Your task to perform on an android device: turn on translation in the chrome app Image 0: 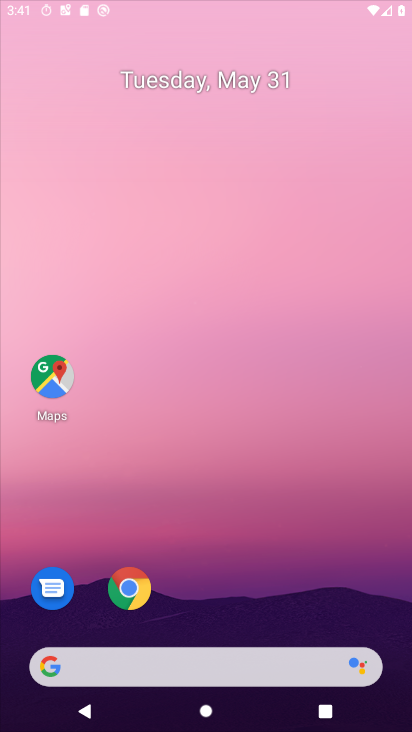
Step 0: drag from (259, 166) to (255, 86)
Your task to perform on an android device: turn on translation in the chrome app Image 1: 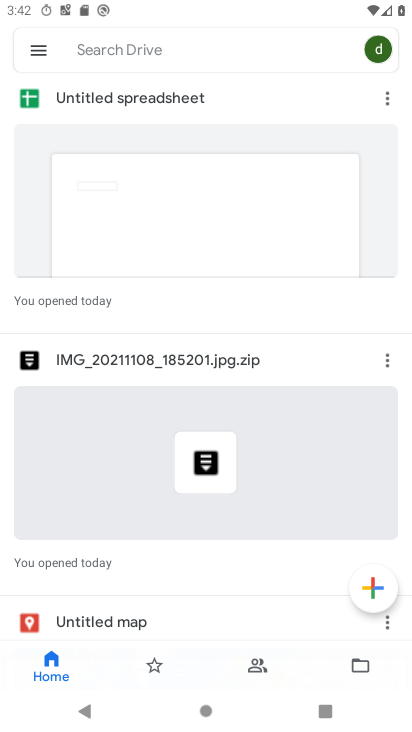
Step 1: press home button
Your task to perform on an android device: turn on translation in the chrome app Image 2: 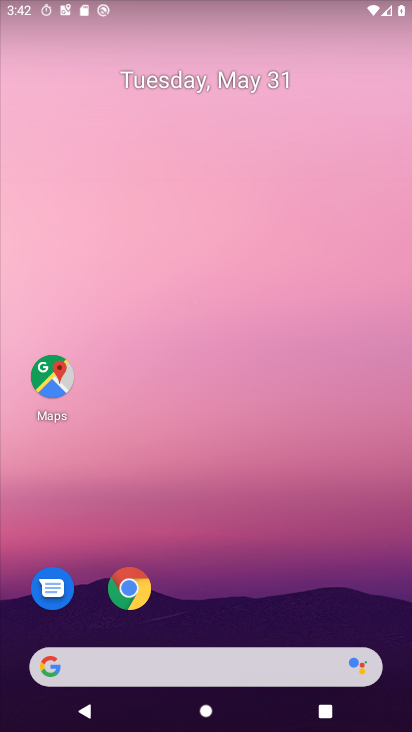
Step 2: drag from (221, 678) to (299, 45)
Your task to perform on an android device: turn on translation in the chrome app Image 3: 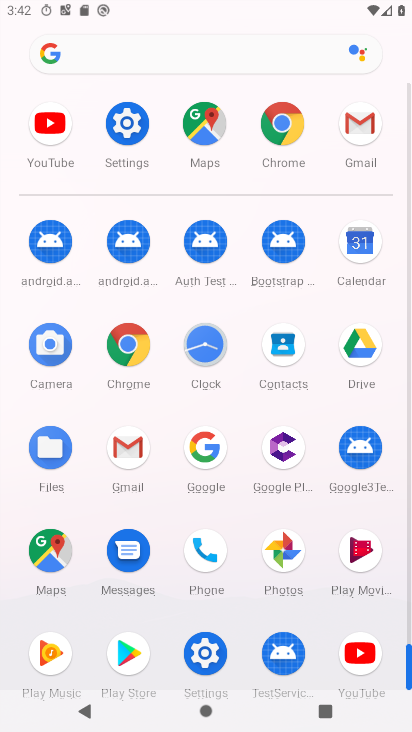
Step 3: click (133, 364)
Your task to perform on an android device: turn on translation in the chrome app Image 4: 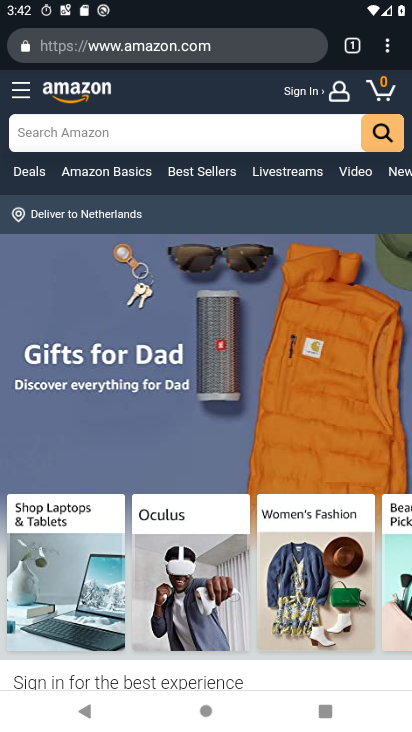
Step 4: click (391, 51)
Your task to perform on an android device: turn on translation in the chrome app Image 5: 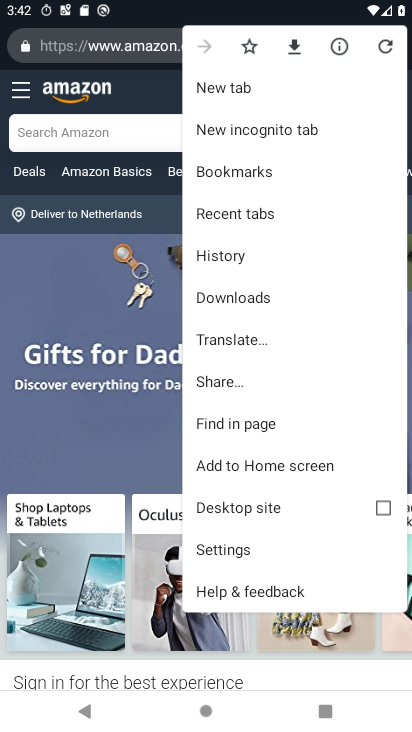
Step 5: click (277, 546)
Your task to perform on an android device: turn on translation in the chrome app Image 6: 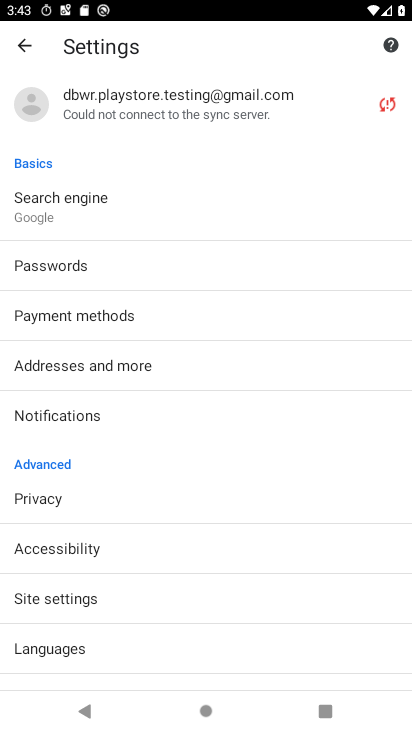
Step 6: task complete